Your task to perform on an android device: Go to privacy settings Image 0: 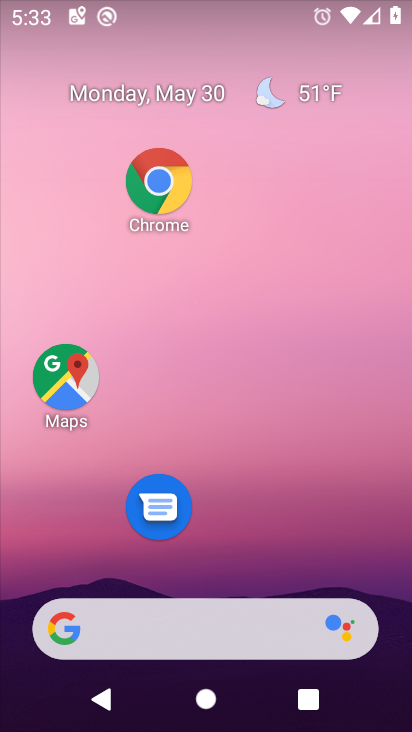
Step 0: drag from (276, 552) to (217, 44)
Your task to perform on an android device: Go to privacy settings Image 1: 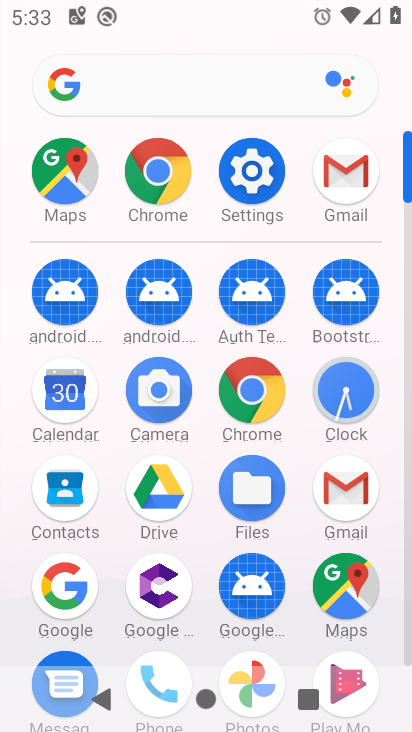
Step 1: click (266, 133)
Your task to perform on an android device: Go to privacy settings Image 2: 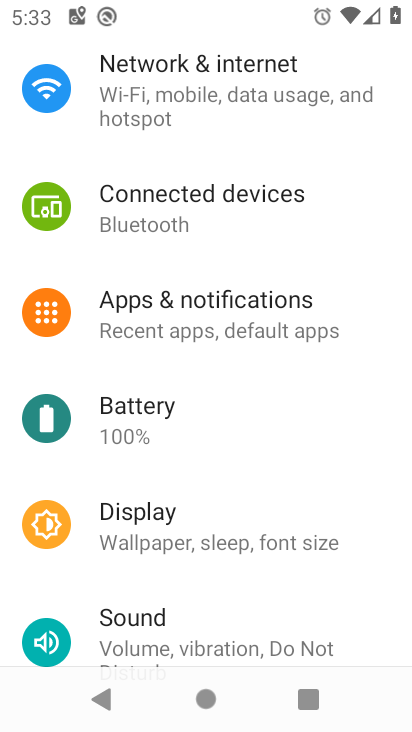
Step 2: drag from (196, 511) to (89, 113)
Your task to perform on an android device: Go to privacy settings Image 3: 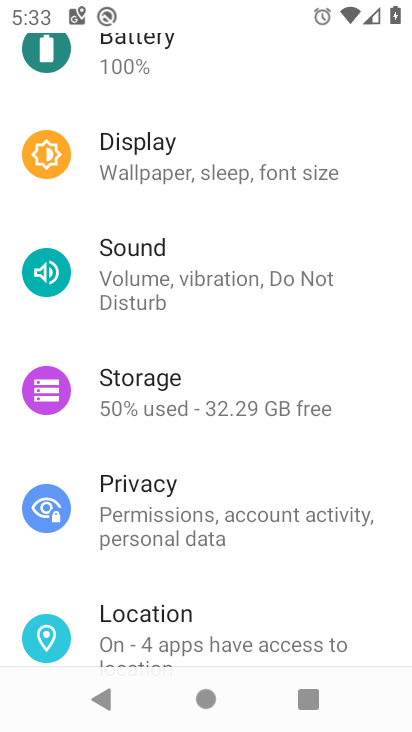
Step 3: click (138, 461)
Your task to perform on an android device: Go to privacy settings Image 4: 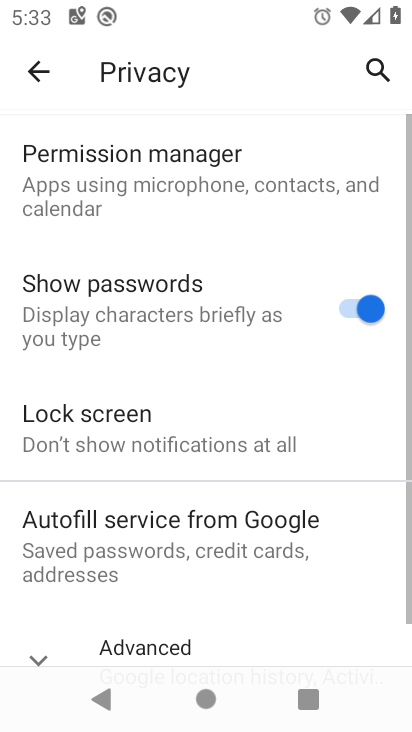
Step 4: task complete